Your task to perform on an android device: turn pop-ups off in chrome Image 0: 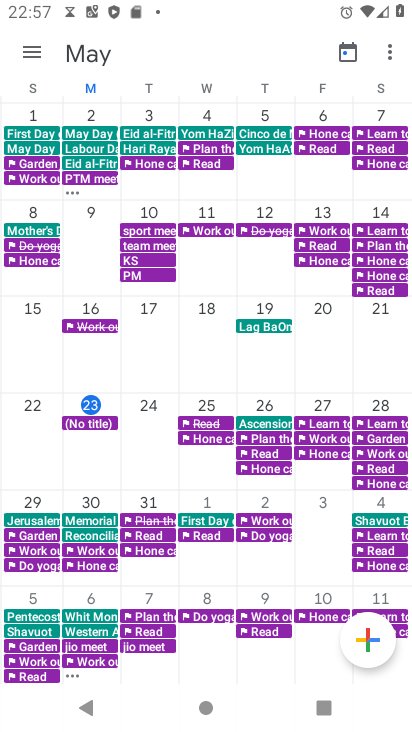
Step 0: press home button
Your task to perform on an android device: turn pop-ups off in chrome Image 1: 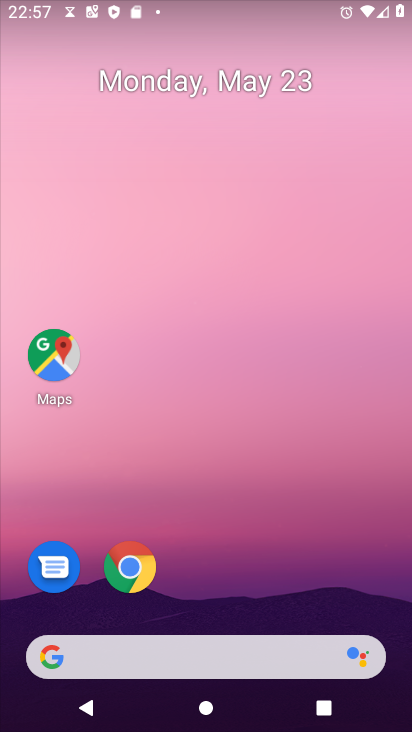
Step 1: drag from (222, 572) to (295, 145)
Your task to perform on an android device: turn pop-ups off in chrome Image 2: 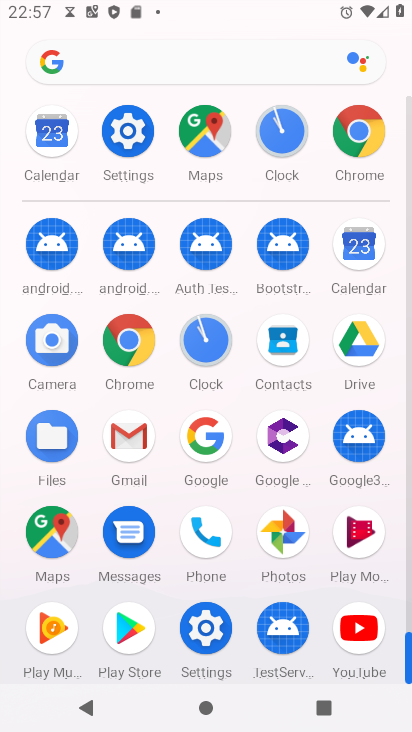
Step 2: click (363, 135)
Your task to perform on an android device: turn pop-ups off in chrome Image 3: 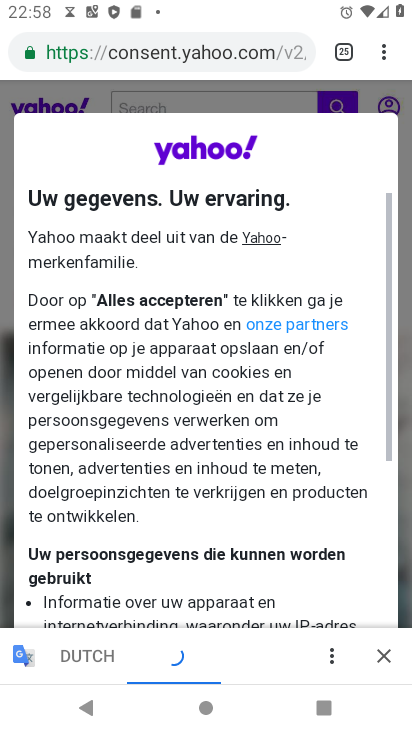
Step 3: click (396, 47)
Your task to perform on an android device: turn pop-ups off in chrome Image 4: 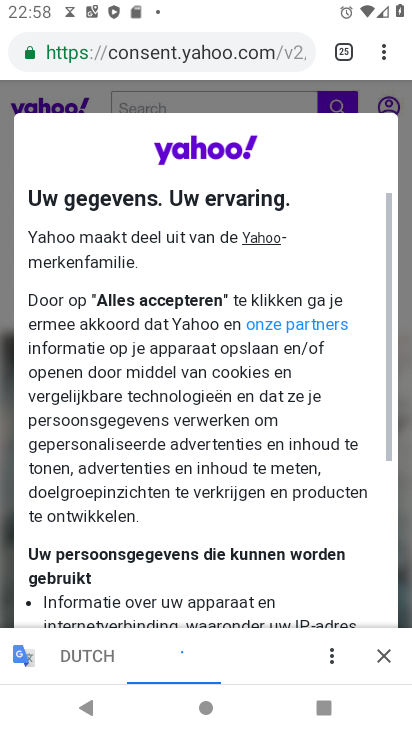
Step 4: click (383, 53)
Your task to perform on an android device: turn pop-ups off in chrome Image 5: 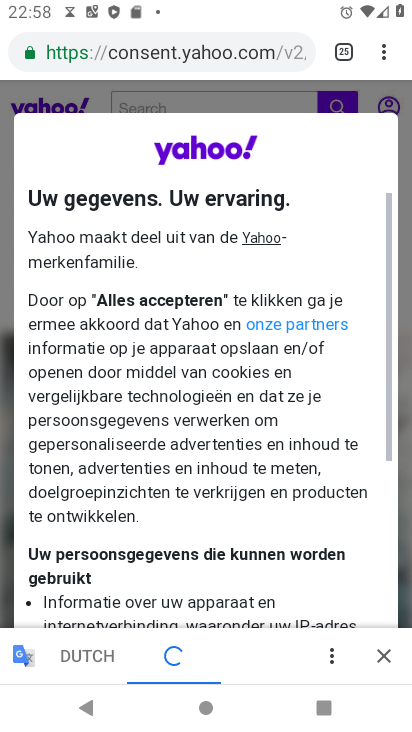
Step 5: click (387, 52)
Your task to perform on an android device: turn pop-ups off in chrome Image 6: 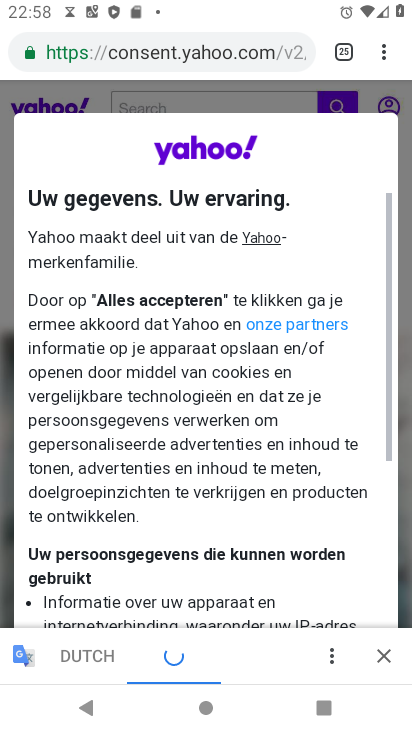
Step 6: click (374, 55)
Your task to perform on an android device: turn pop-ups off in chrome Image 7: 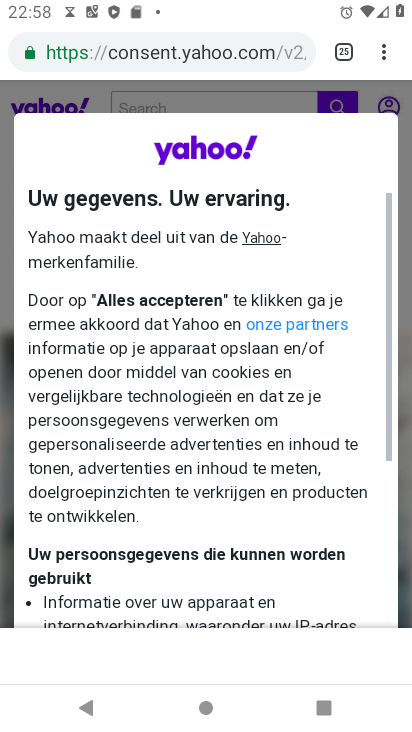
Step 7: click (374, 55)
Your task to perform on an android device: turn pop-ups off in chrome Image 8: 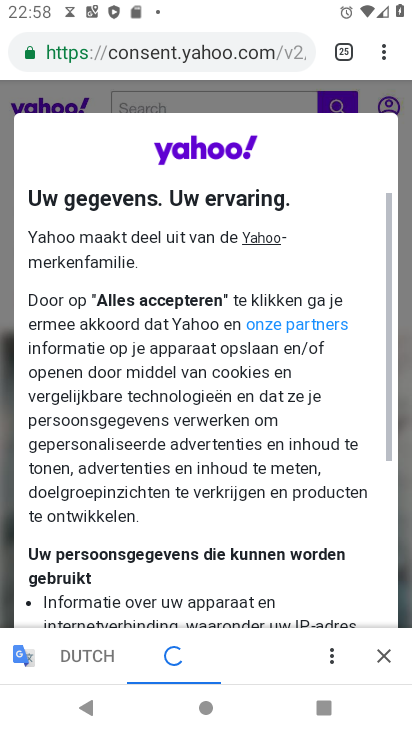
Step 8: click (382, 51)
Your task to perform on an android device: turn pop-ups off in chrome Image 9: 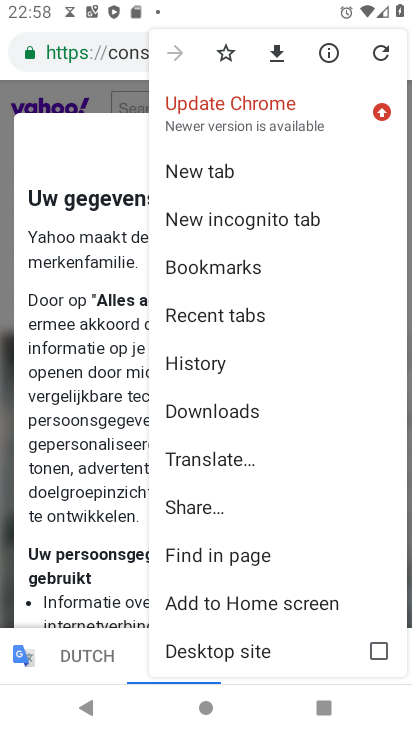
Step 9: drag from (247, 477) to (287, 197)
Your task to perform on an android device: turn pop-ups off in chrome Image 10: 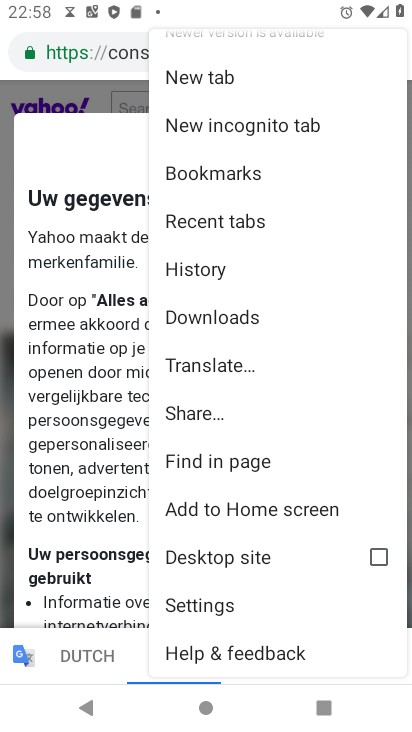
Step 10: click (237, 600)
Your task to perform on an android device: turn pop-ups off in chrome Image 11: 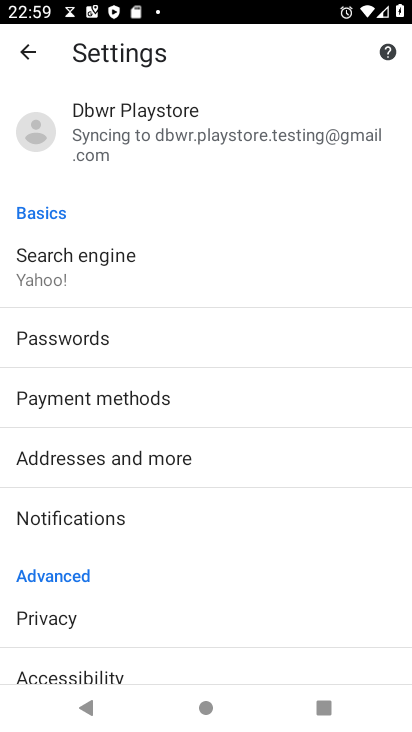
Step 11: drag from (254, 595) to (257, 270)
Your task to perform on an android device: turn pop-ups off in chrome Image 12: 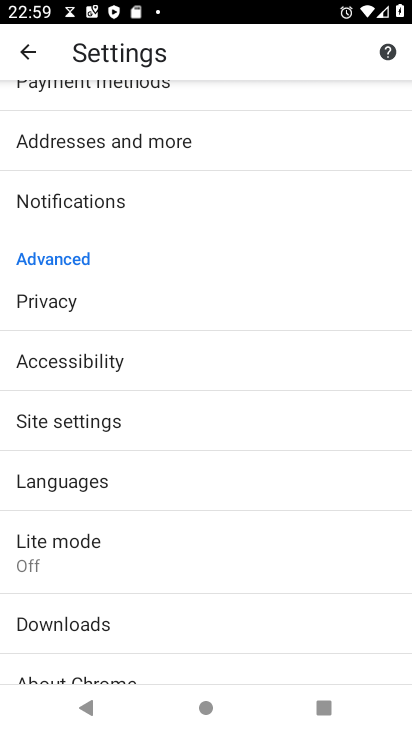
Step 12: click (106, 427)
Your task to perform on an android device: turn pop-ups off in chrome Image 13: 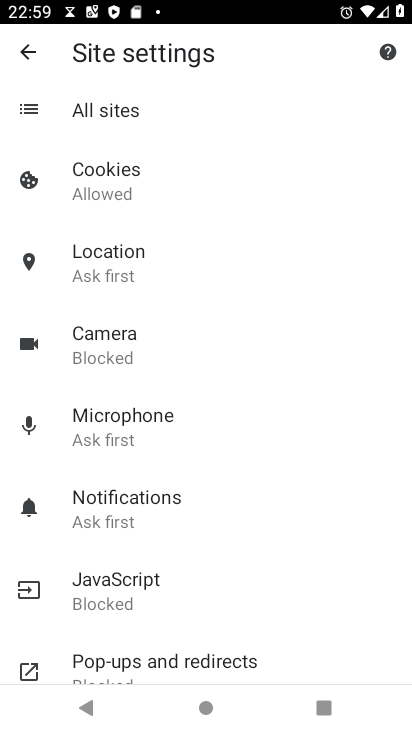
Step 13: click (244, 654)
Your task to perform on an android device: turn pop-ups off in chrome Image 14: 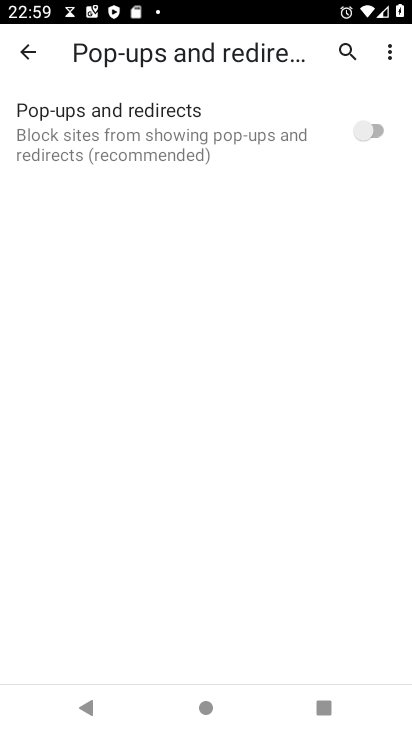
Step 14: click (372, 135)
Your task to perform on an android device: turn pop-ups off in chrome Image 15: 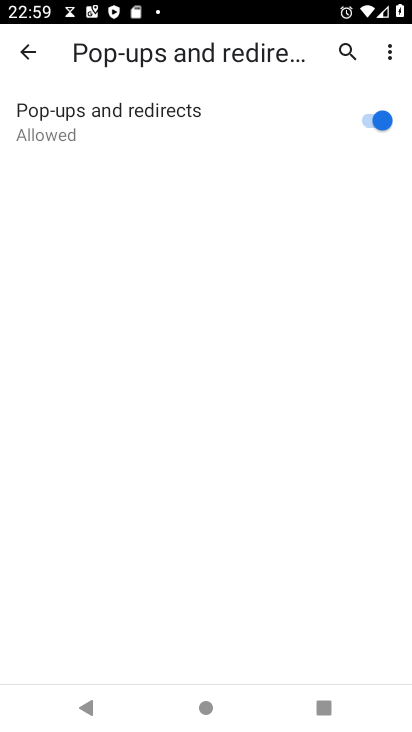
Step 15: task complete